Your task to perform on an android device: Go to location settings Image 0: 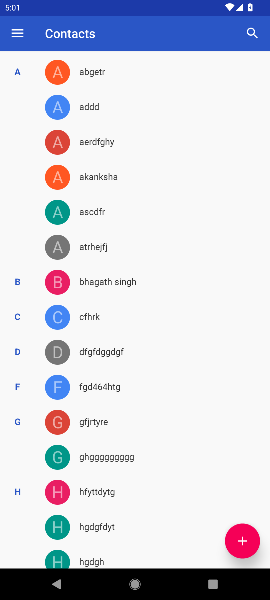
Step 0: press home button
Your task to perform on an android device: Go to location settings Image 1: 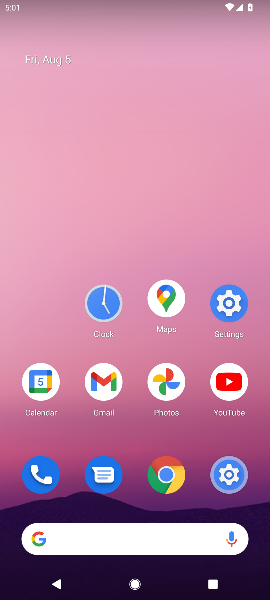
Step 1: click (224, 310)
Your task to perform on an android device: Go to location settings Image 2: 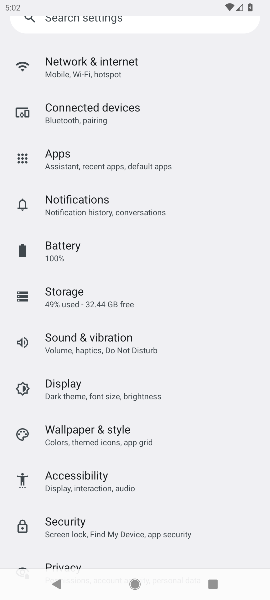
Step 2: drag from (212, 471) to (159, 253)
Your task to perform on an android device: Go to location settings Image 3: 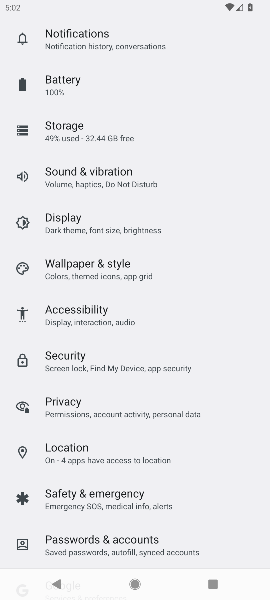
Step 3: click (87, 447)
Your task to perform on an android device: Go to location settings Image 4: 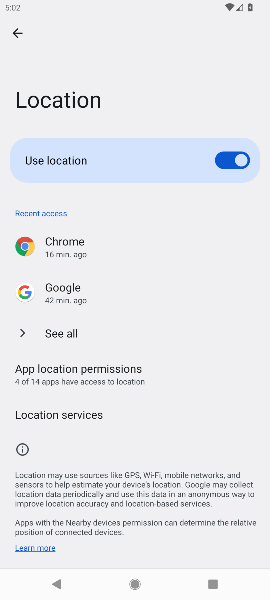
Step 4: task complete